Your task to perform on an android device: install app "Pandora - Music & Podcasts" Image 0: 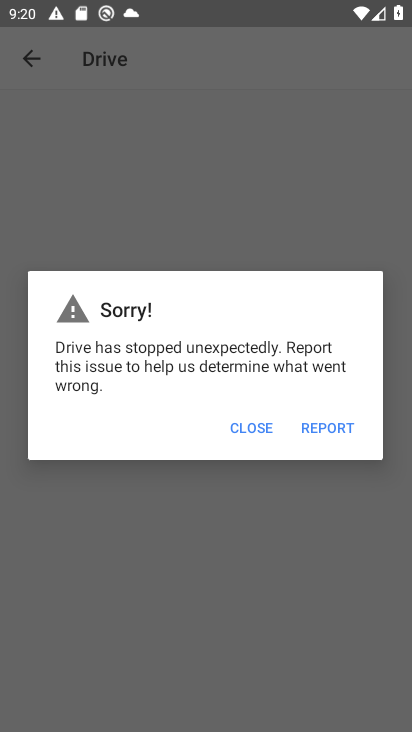
Step 0: press home button
Your task to perform on an android device: install app "Pandora - Music & Podcasts" Image 1: 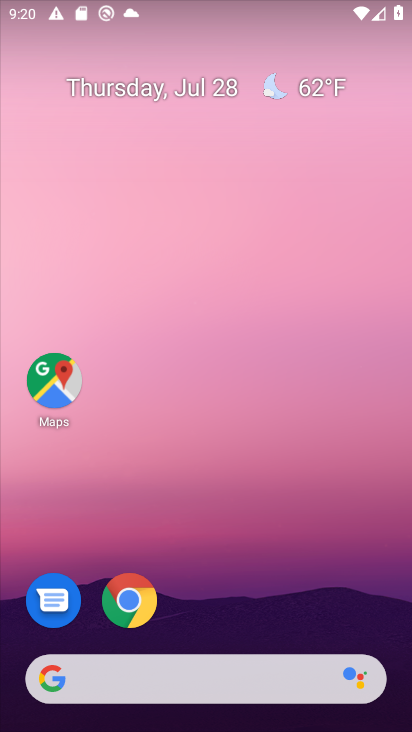
Step 1: drag from (236, 613) to (211, 46)
Your task to perform on an android device: install app "Pandora - Music & Podcasts" Image 2: 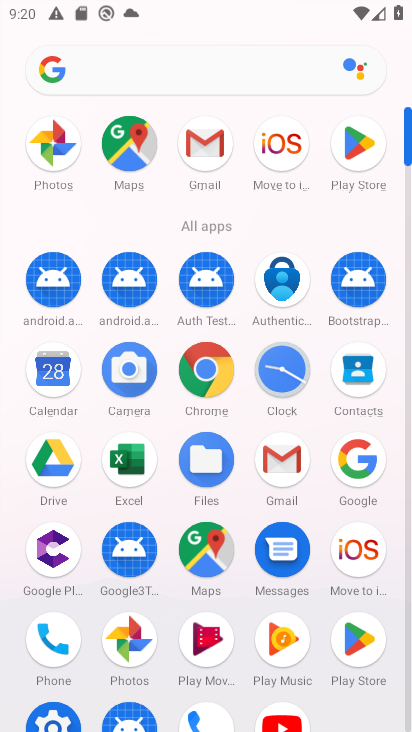
Step 2: click (360, 152)
Your task to perform on an android device: install app "Pandora - Music & Podcasts" Image 3: 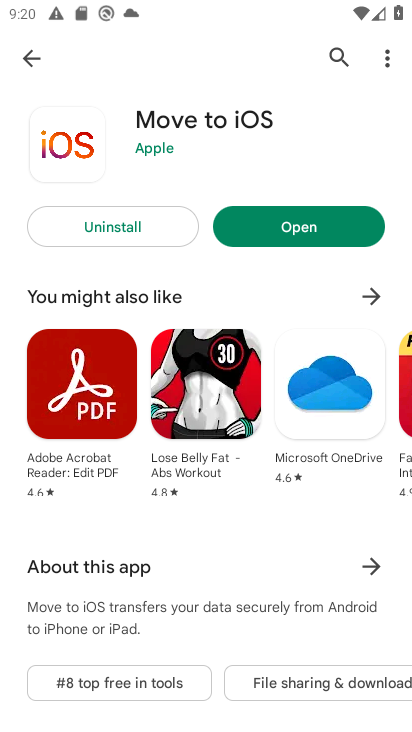
Step 3: click (334, 55)
Your task to perform on an android device: install app "Pandora - Music & Podcasts" Image 4: 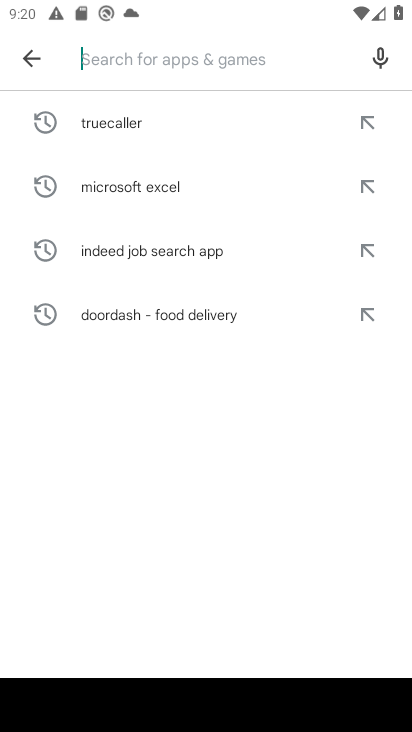
Step 4: click (278, 67)
Your task to perform on an android device: install app "Pandora - Music & Podcasts" Image 5: 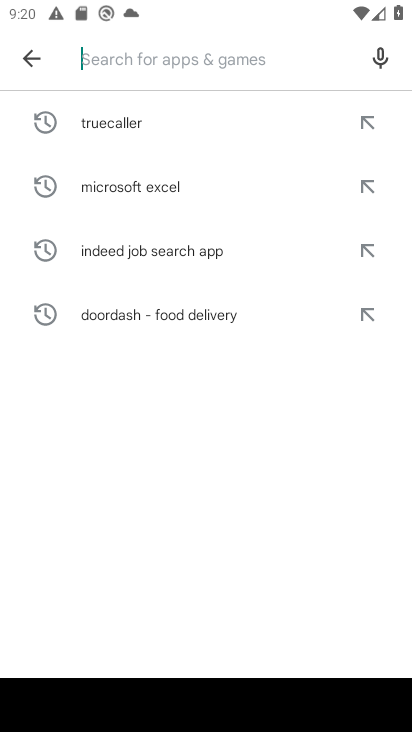
Step 5: type "Pandora - Music & Podcasts"
Your task to perform on an android device: install app "Pandora - Music & Podcasts" Image 6: 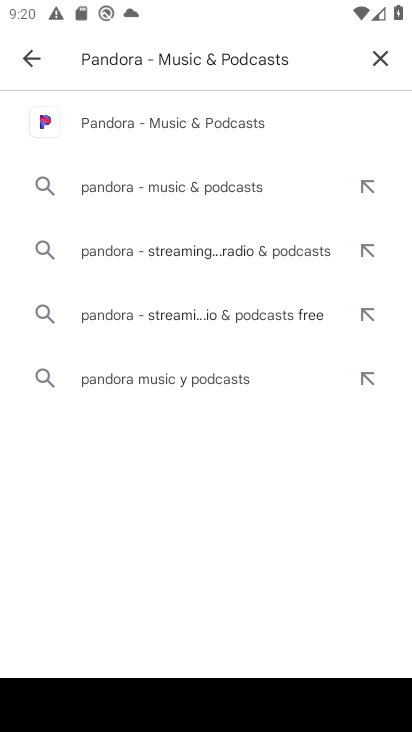
Step 6: click (139, 130)
Your task to perform on an android device: install app "Pandora - Music & Podcasts" Image 7: 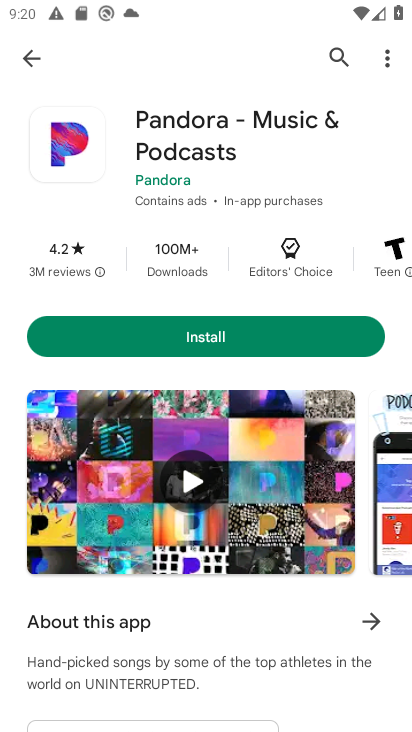
Step 7: click (171, 331)
Your task to perform on an android device: install app "Pandora - Music & Podcasts" Image 8: 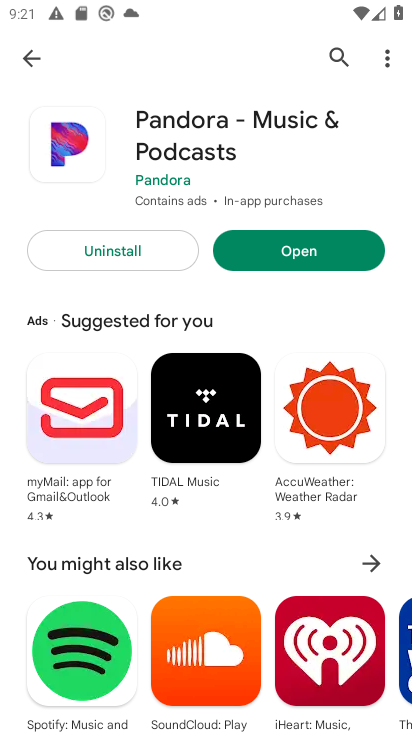
Step 8: task complete